Your task to perform on an android device: install app "Adobe Acrobat Reader" Image 0: 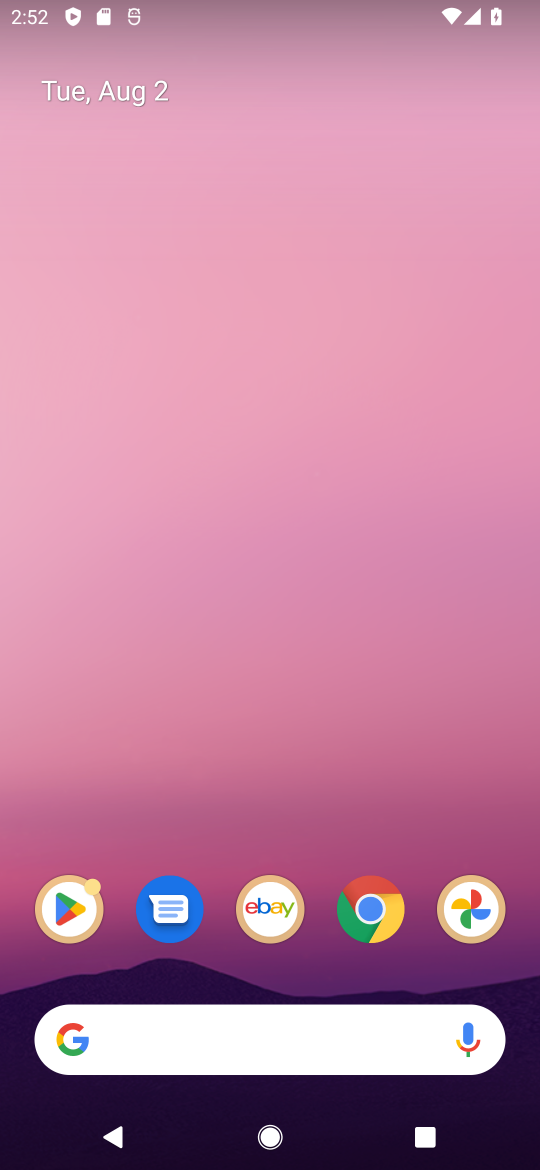
Step 0: press home button
Your task to perform on an android device: install app "Adobe Acrobat Reader" Image 1: 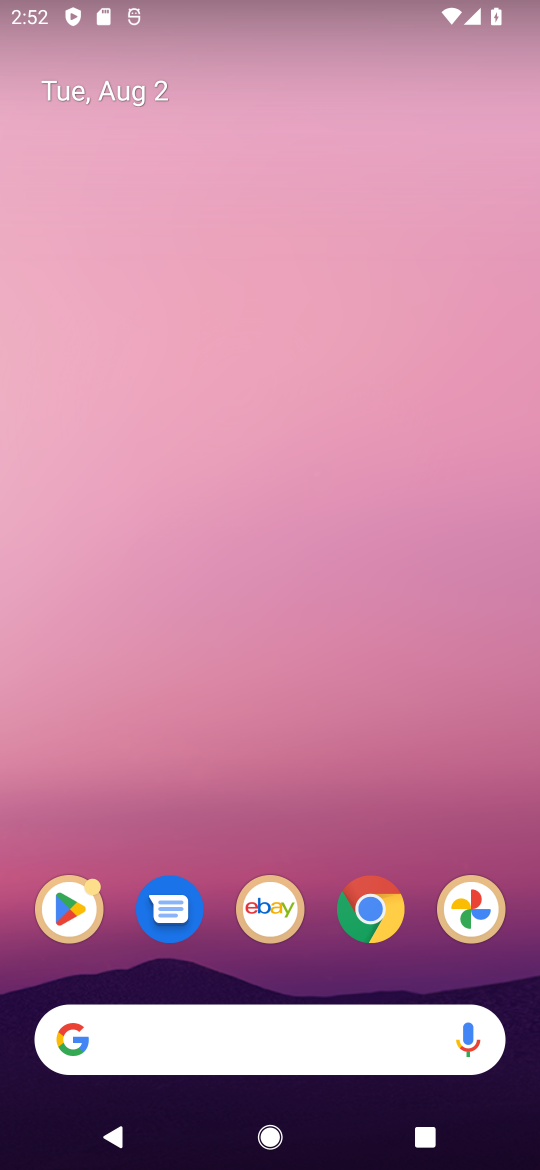
Step 1: click (79, 894)
Your task to perform on an android device: install app "Adobe Acrobat Reader" Image 2: 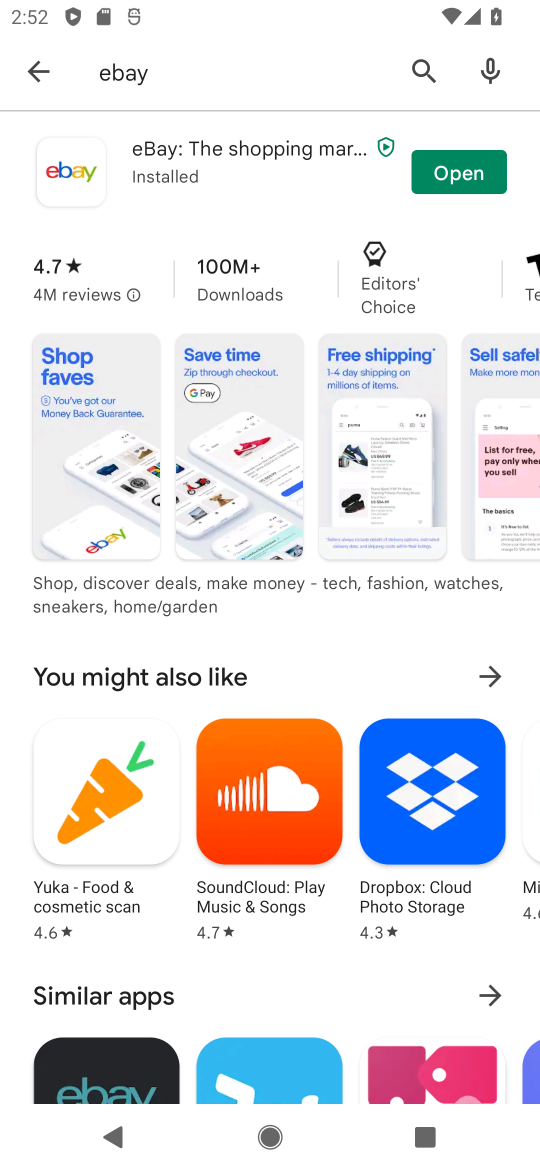
Step 2: click (420, 73)
Your task to perform on an android device: install app "Adobe Acrobat Reader" Image 3: 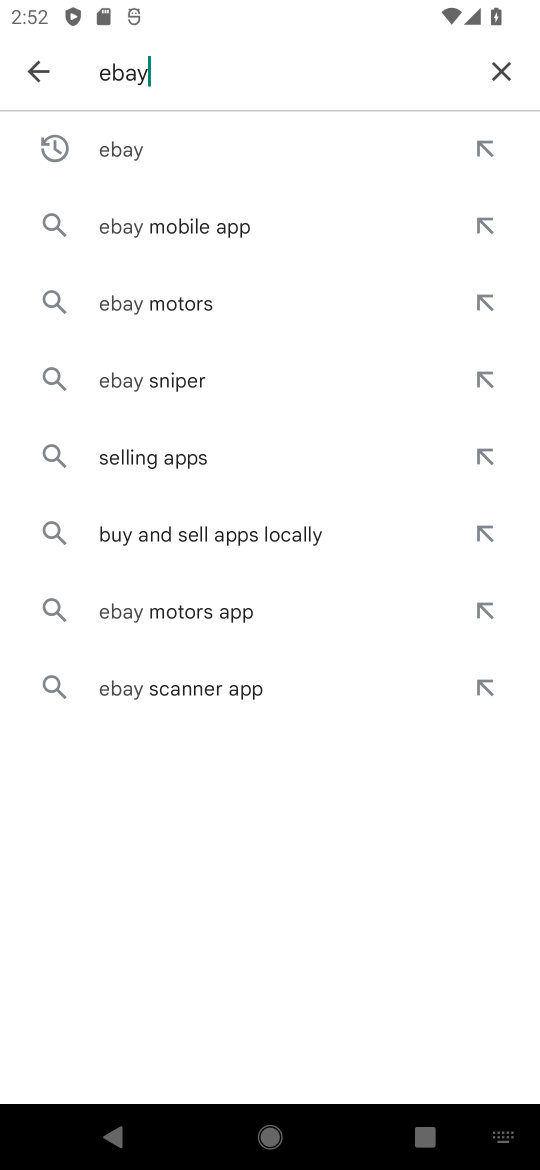
Step 3: click (513, 62)
Your task to perform on an android device: install app "Adobe Acrobat Reader" Image 4: 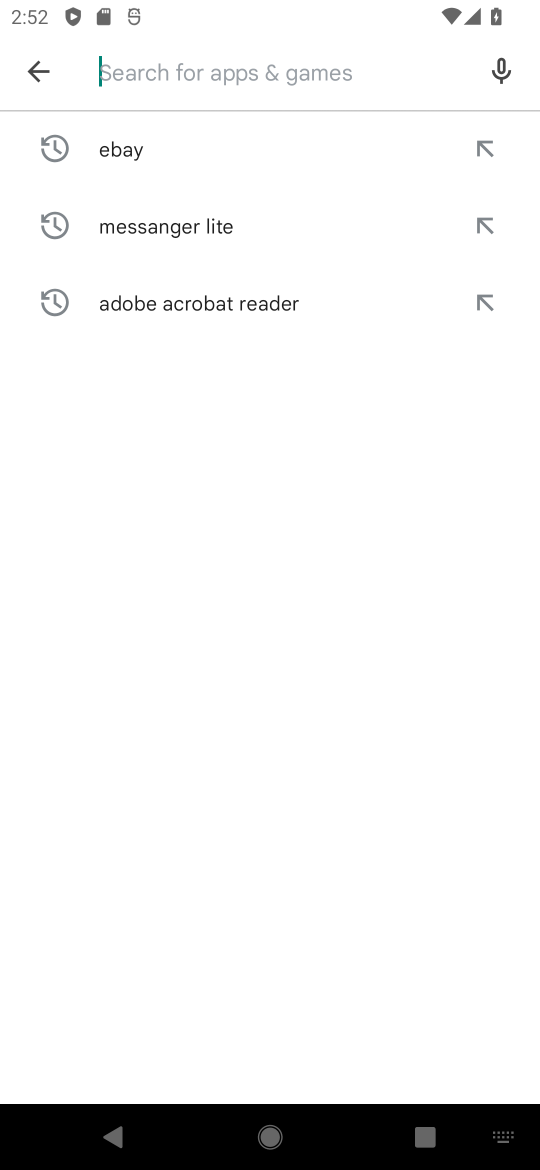
Step 4: type "Adobe Acrobat Reader"
Your task to perform on an android device: install app "Adobe Acrobat Reader" Image 5: 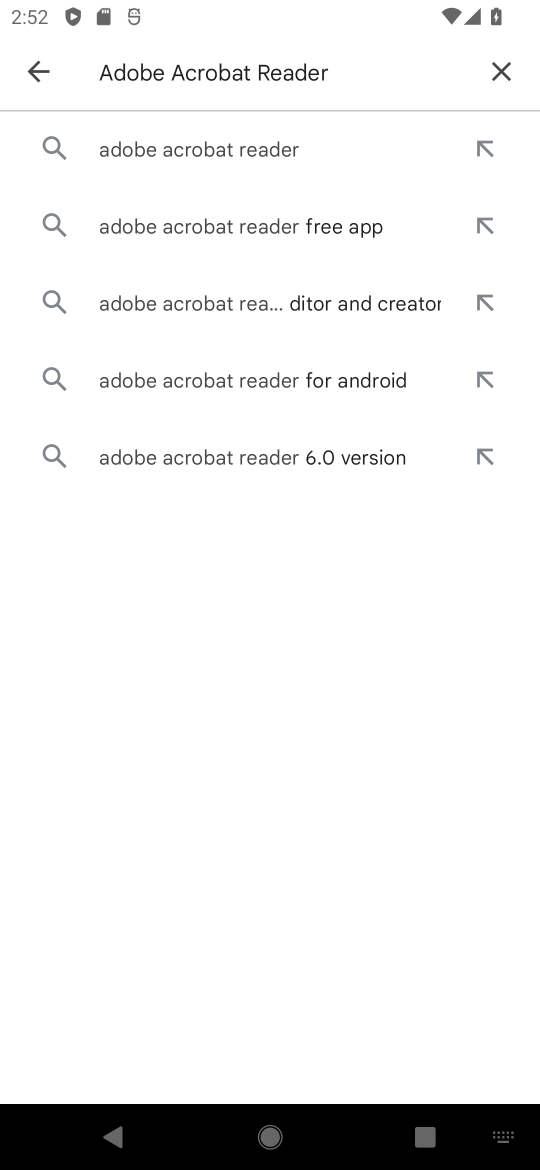
Step 5: click (130, 146)
Your task to perform on an android device: install app "Adobe Acrobat Reader" Image 6: 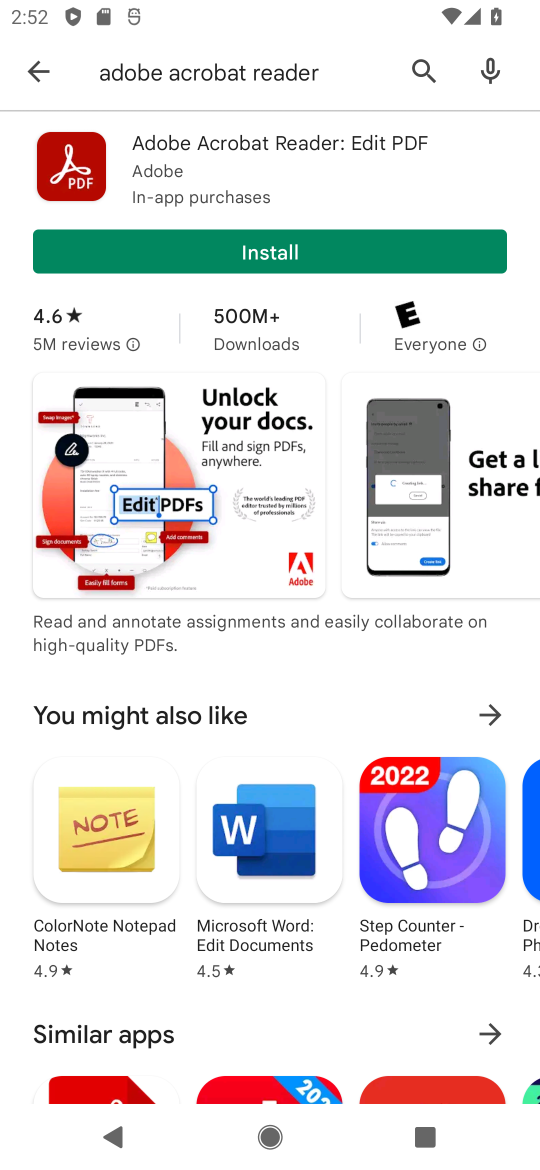
Step 6: click (262, 257)
Your task to perform on an android device: install app "Adobe Acrobat Reader" Image 7: 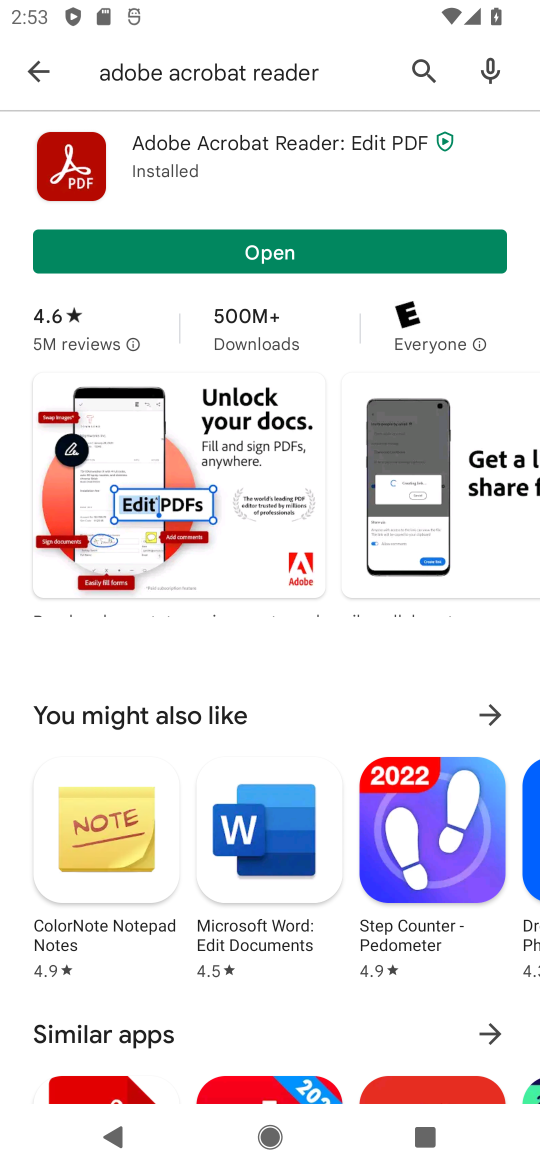
Step 7: task complete